Your task to perform on an android device: Go to Wikipedia Image 0: 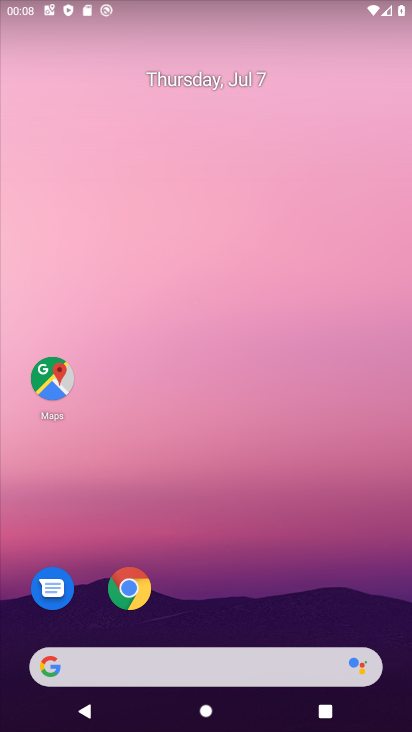
Step 0: click (127, 589)
Your task to perform on an android device: Go to Wikipedia Image 1: 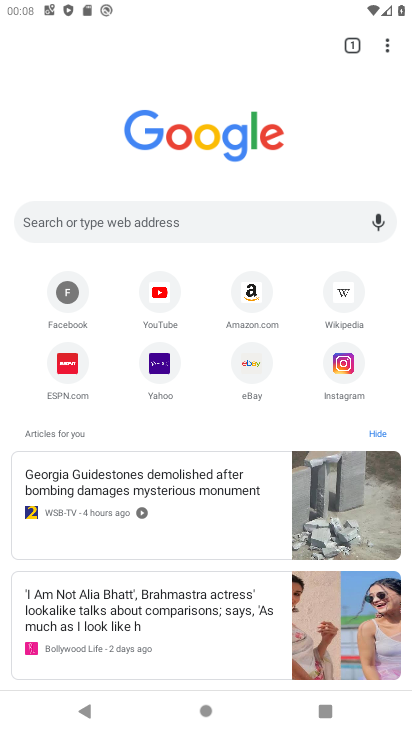
Step 1: click (342, 291)
Your task to perform on an android device: Go to Wikipedia Image 2: 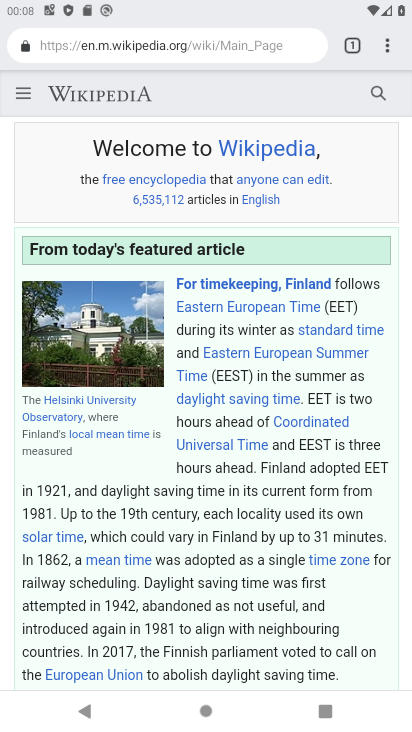
Step 2: task complete